Your task to perform on an android device: turn off airplane mode Image 0: 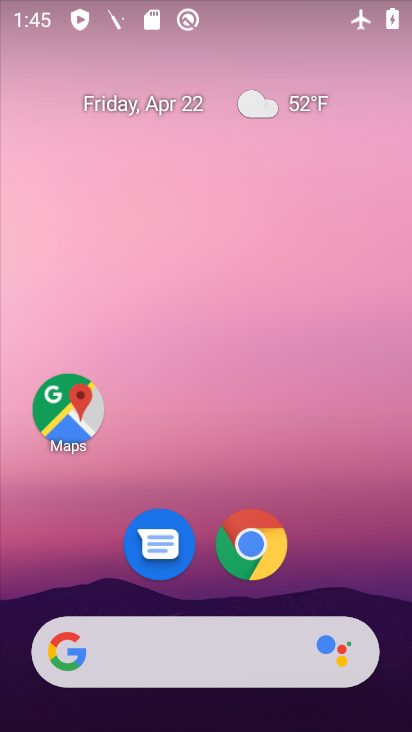
Step 0: drag from (318, 579) to (326, 43)
Your task to perform on an android device: turn off airplane mode Image 1: 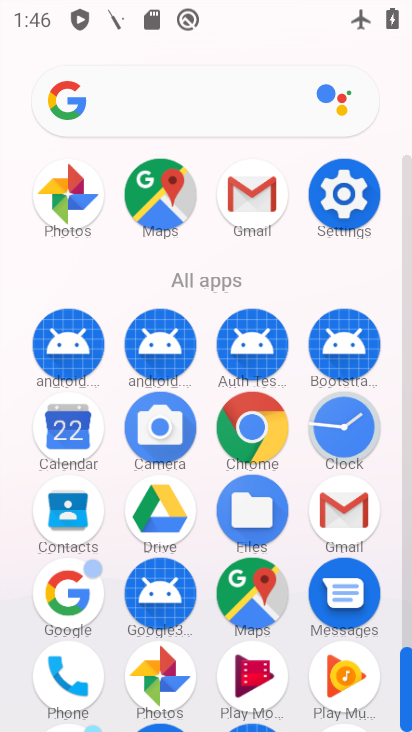
Step 1: click (354, 189)
Your task to perform on an android device: turn off airplane mode Image 2: 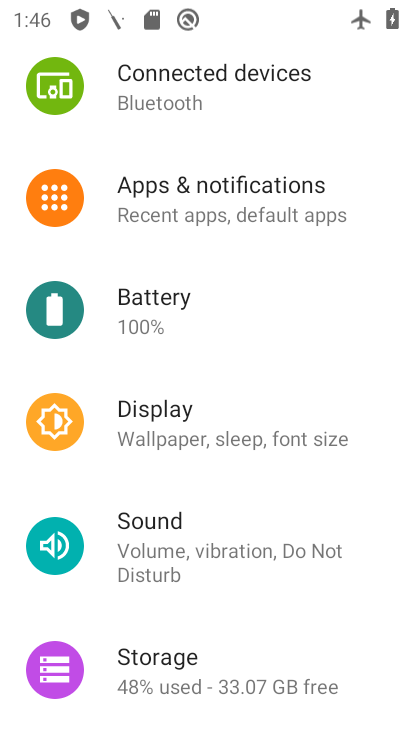
Step 2: drag from (308, 4) to (323, 428)
Your task to perform on an android device: turn off airplane mode Image 3: 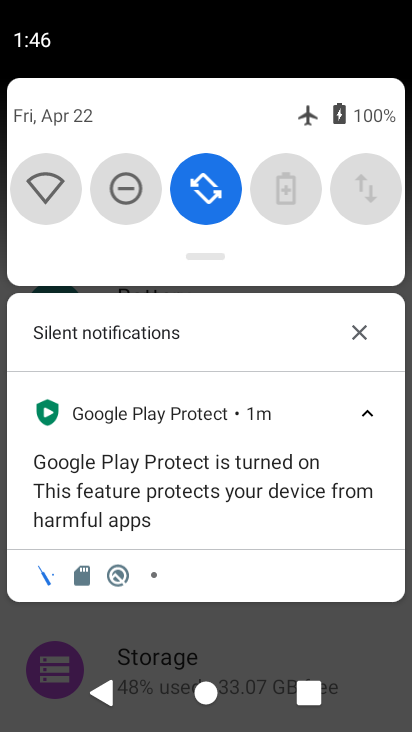
Step 3: drag from (254, 626) to (305, 199)
Your task to perform on an android device: turn off airplane mode Image 4: 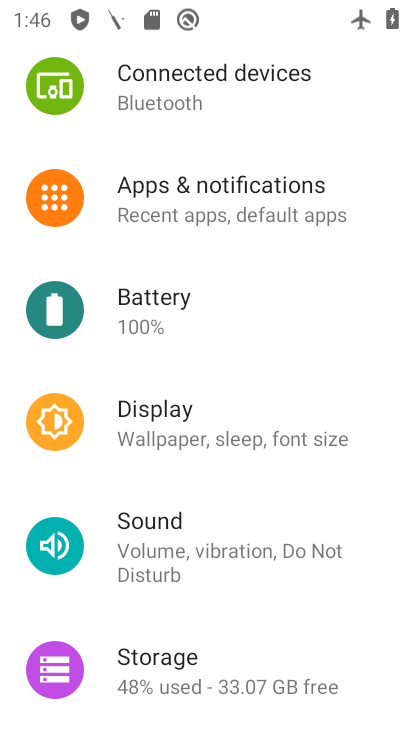
Step 4: drag from (281, 155) to (261, 545)
Your task to perform on an android device: turn off airplane mode Image 5: 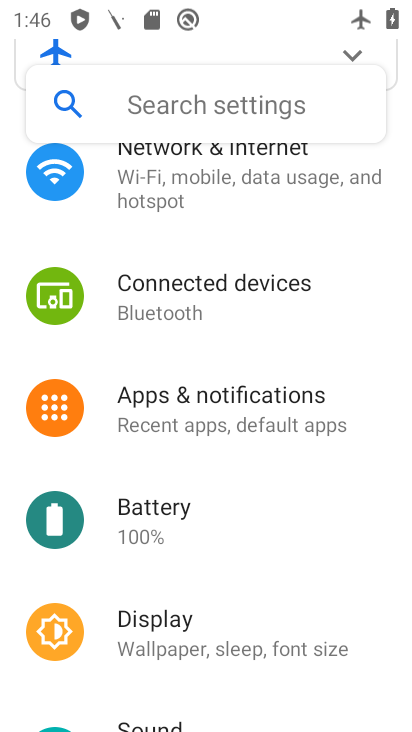
Step 5: drag from (253, 388) to (265, 588)
Your task to perform on an android device: turn off airplane mode Image 6: 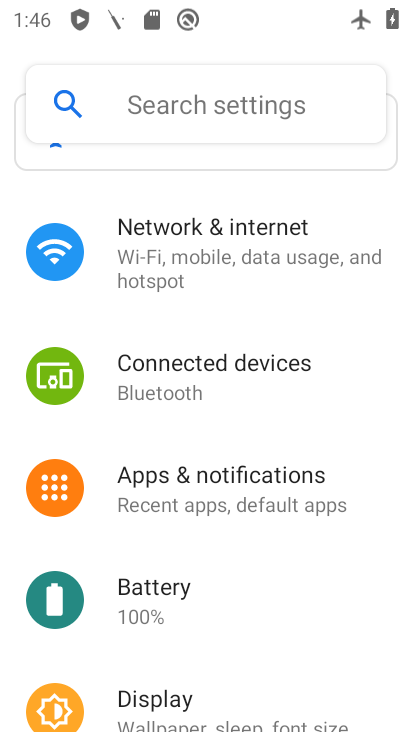
Step 6: click (257, 271)
Your task to perform on an android device: turn off airplane mode Image 7: 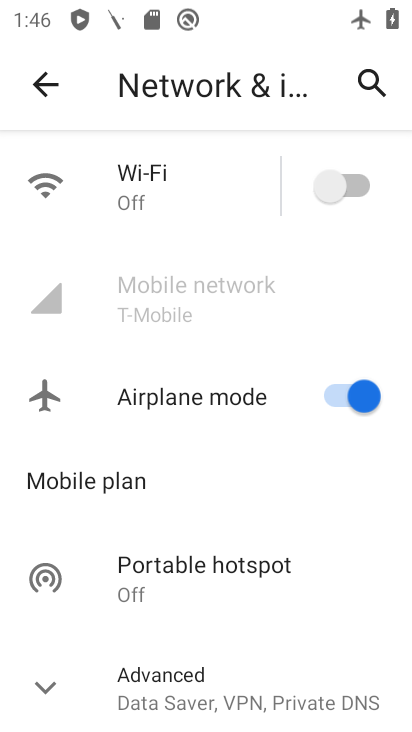
Step 7: click (348, 387)
Your task to perform on an android device: turn off airplane mode Image 8: 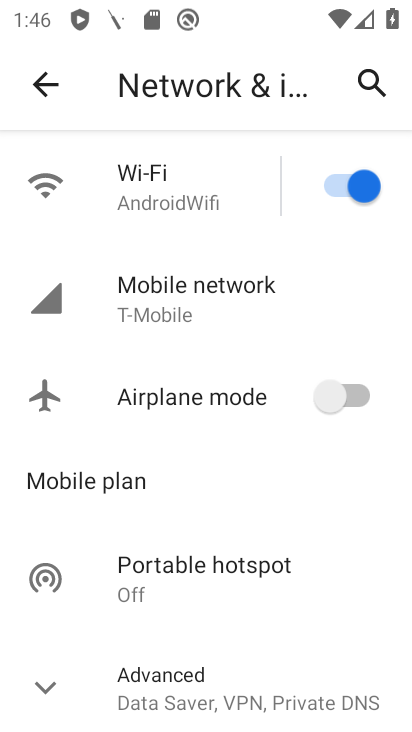
Step 8: task complete